Your task to perform on an android device: Open internet settings Image 0: 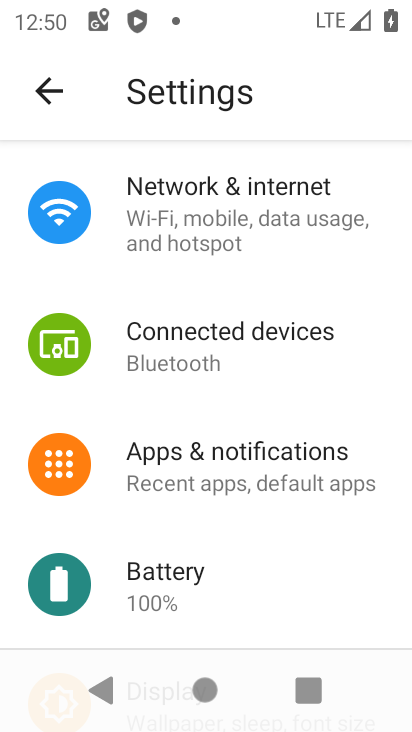
Step 0: click (242, 227)
Your task to perform on an android device: Open internet settings Image 1: 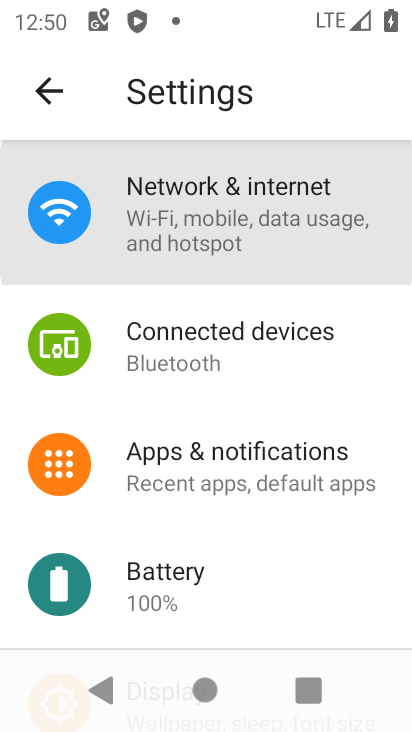
Step 1: click (242, 227)
Your task to perform on an android device: Open internet settings Image 2: 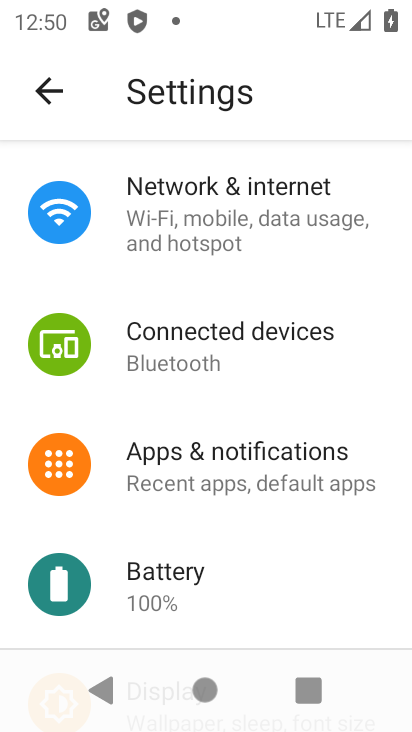
Step 2: click (242, 227)
Your task to perform on an android device: Open internet settings Image 3: 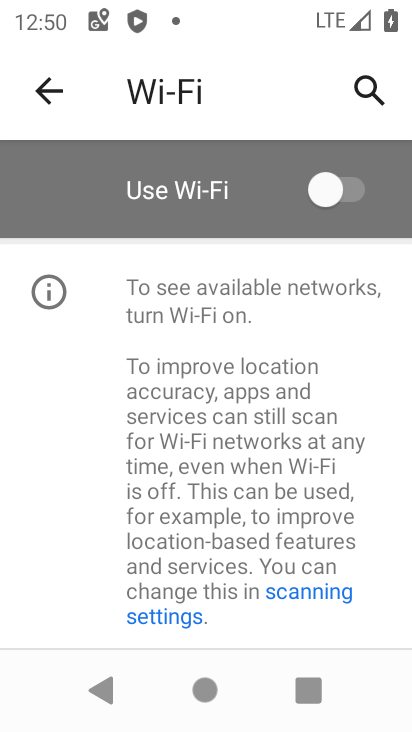
Step 3: click (325, 175)
Your task to perform on an android device: Open internet settings Image 4: 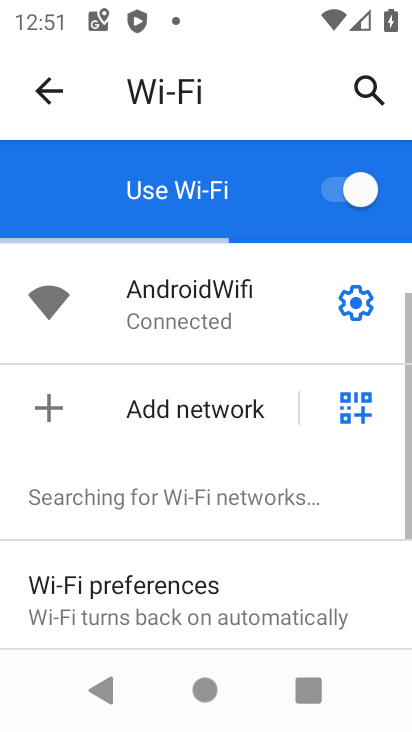
Step 4: task complete